Your task to perform on an android device: delete browsing data in the chrome app Image 0: 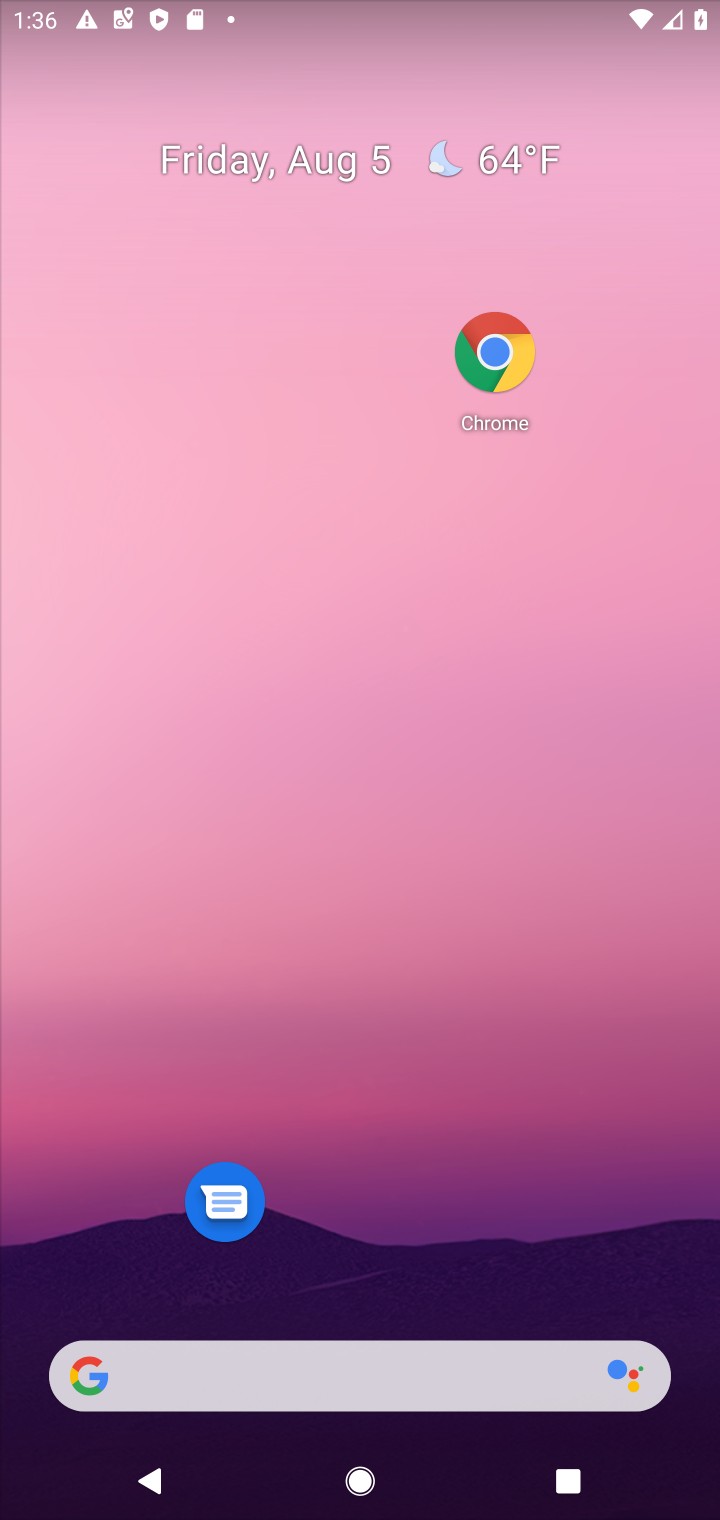
Step 0: drag from (453, 919) to (404, 119)
Your task to perform on an android device: delete browsing data in the chrome app Image 1: 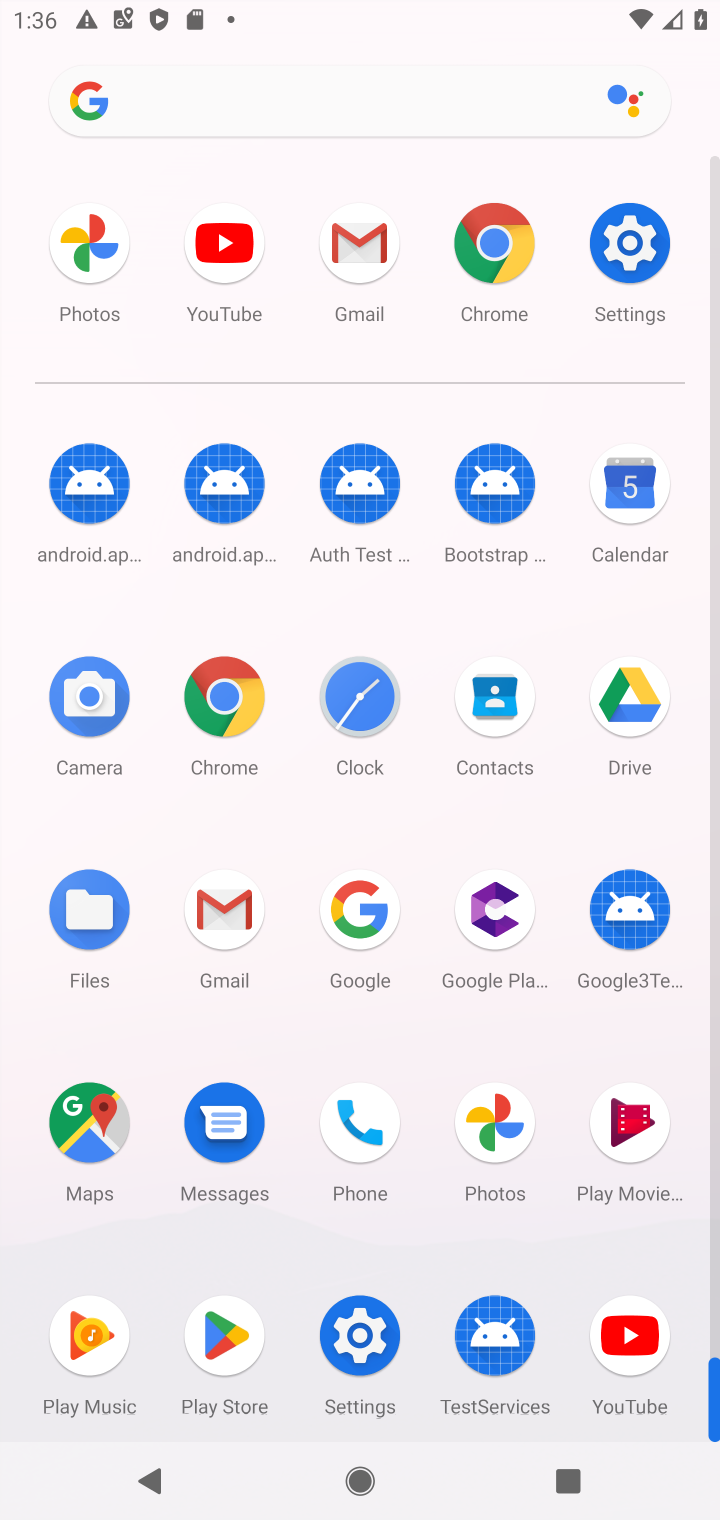
Step 1: click (232, 697)
Your task to perform on an android device: delete browsing data in the chrome app Image 2: 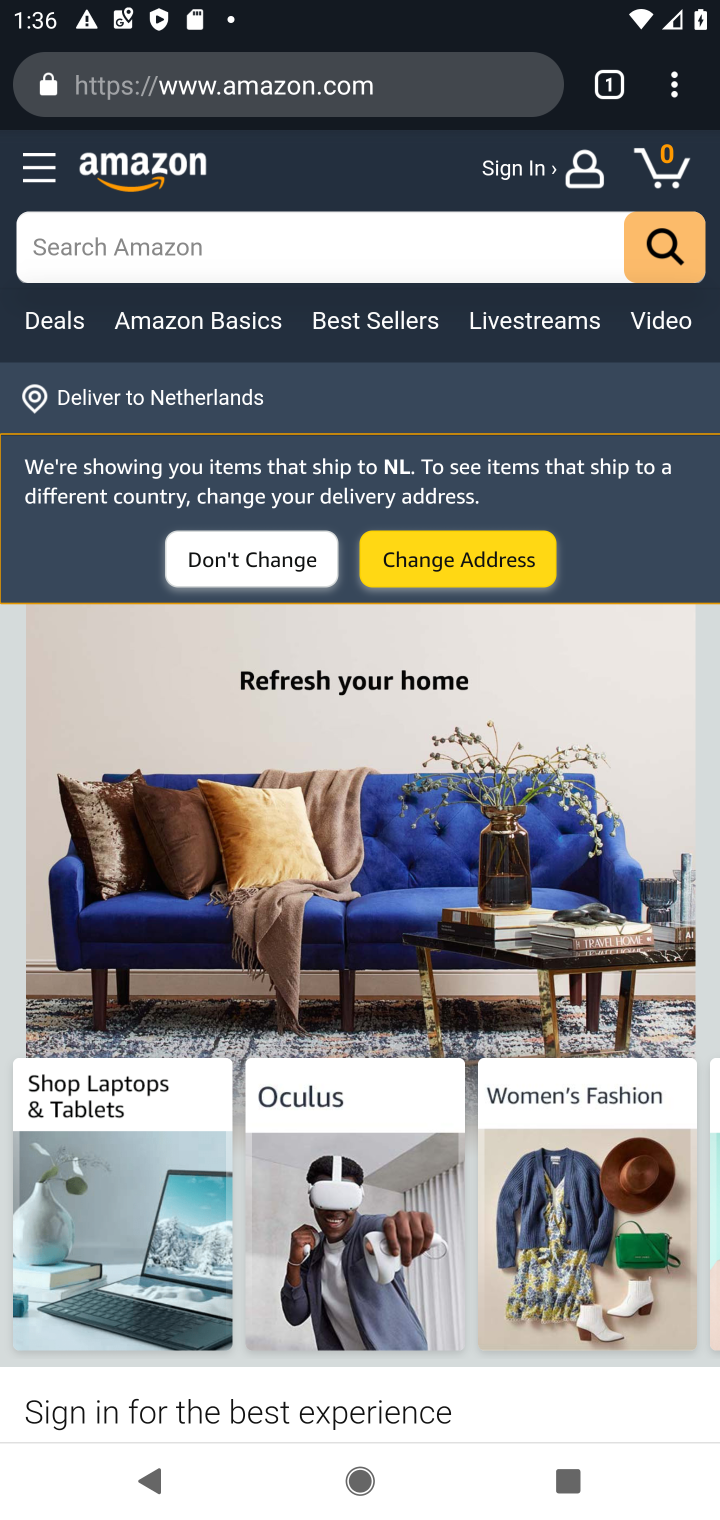
Step 2: drag from (673, 59) to (365, 473)
Your task to perform on an android device: delete browsing data in the chrome app Image 3: 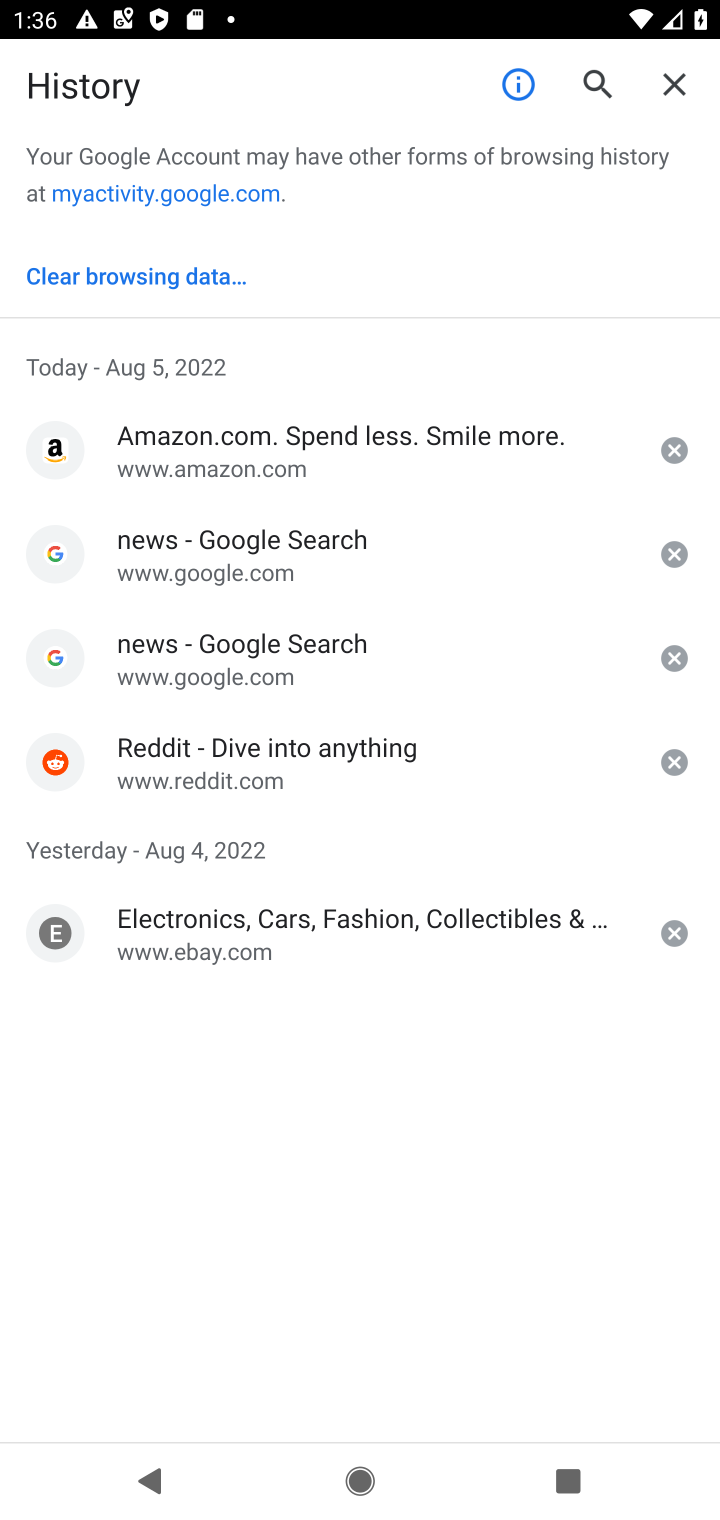
Step 3: click (169, 284)
Your task to perform on an android device: delete browsing data in the chrome app Image 4: 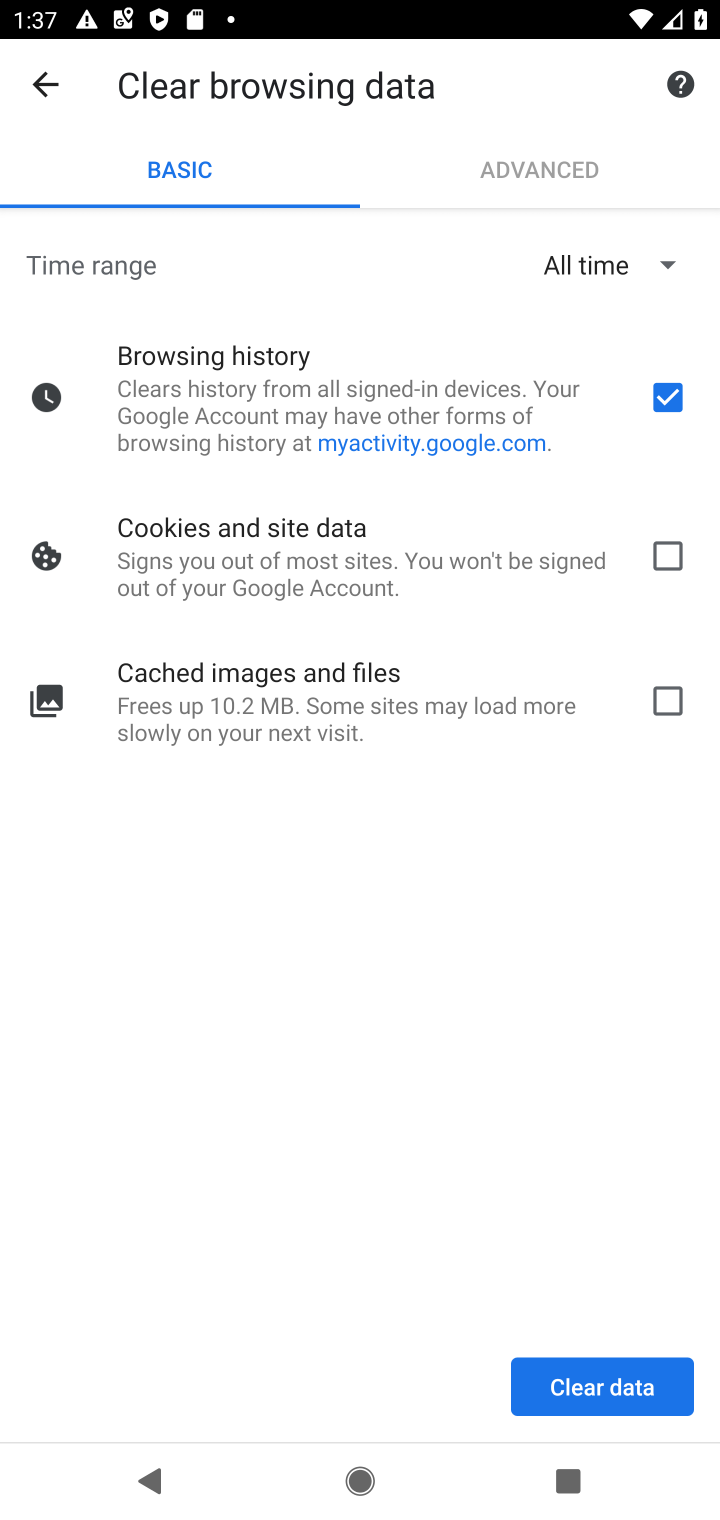
Step 4: click (666, 542)
Your task to perform on an android device: delete browsing data in the chrome app Image 5: 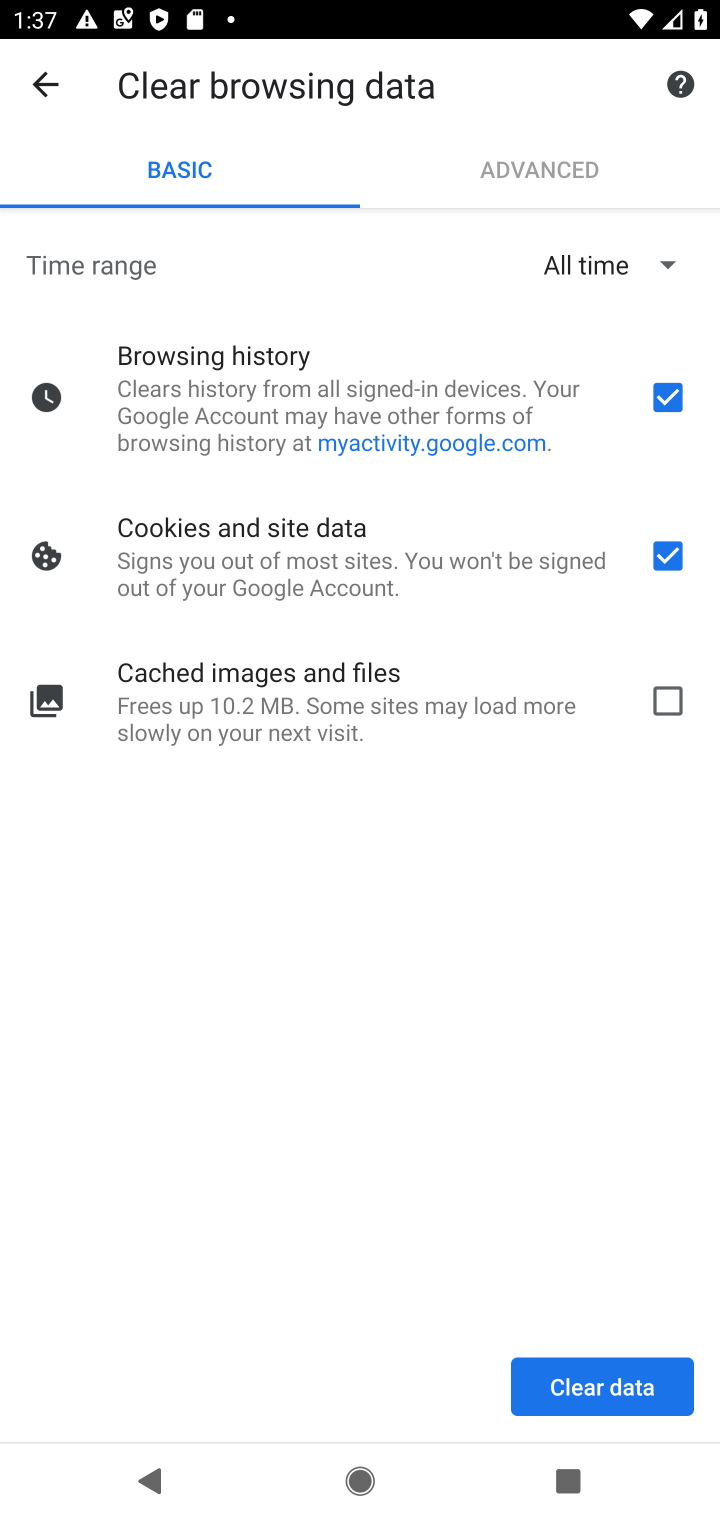
Step 5: click (664, 684)
Your task to perform on an android device: delete browsing data in the chrome app Image 6: 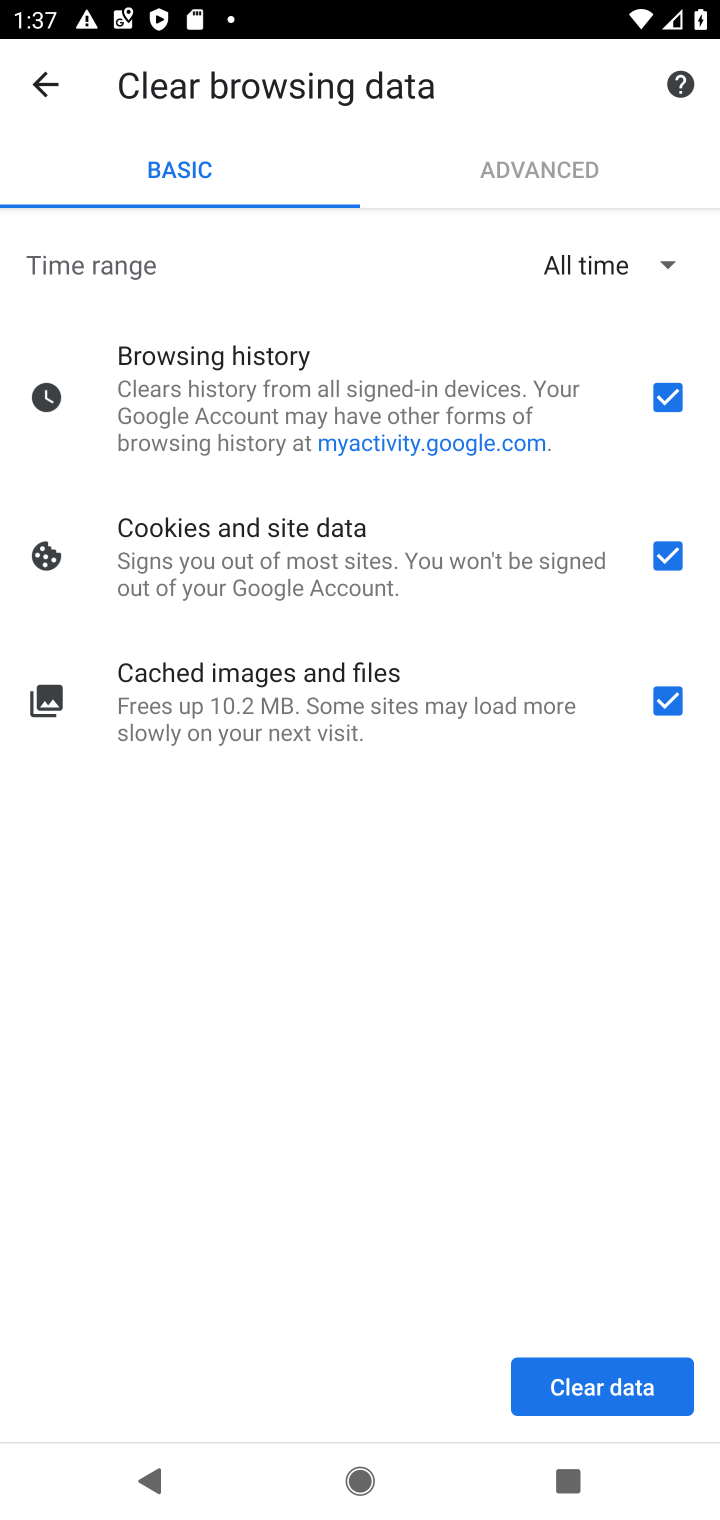
Step 6: click (644, 1385)
Your task to perform on an android device: delete browsing data in the chrome app Image 7: 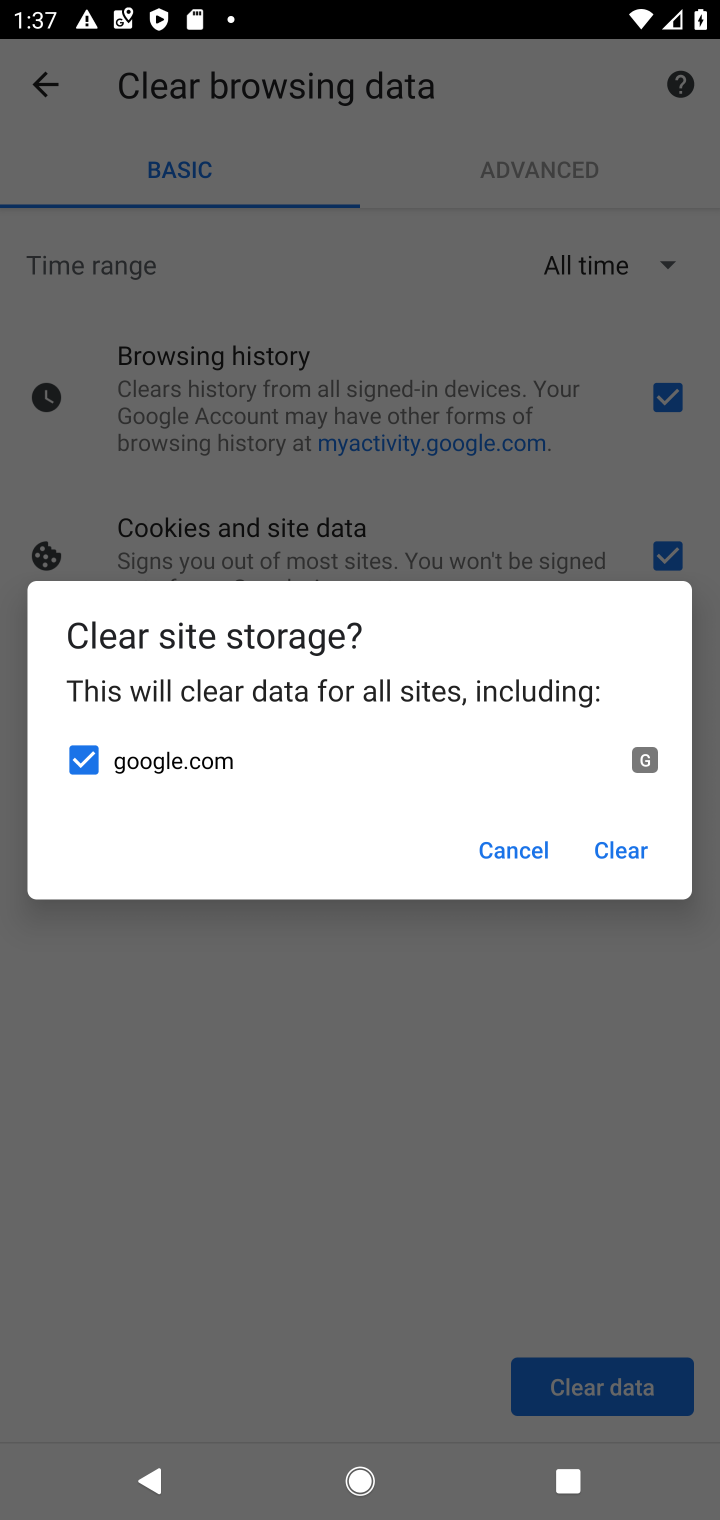
Step 7: click (641, 856)
Your task to perform on an android device: delete browsing data in the chrome app Image 8: 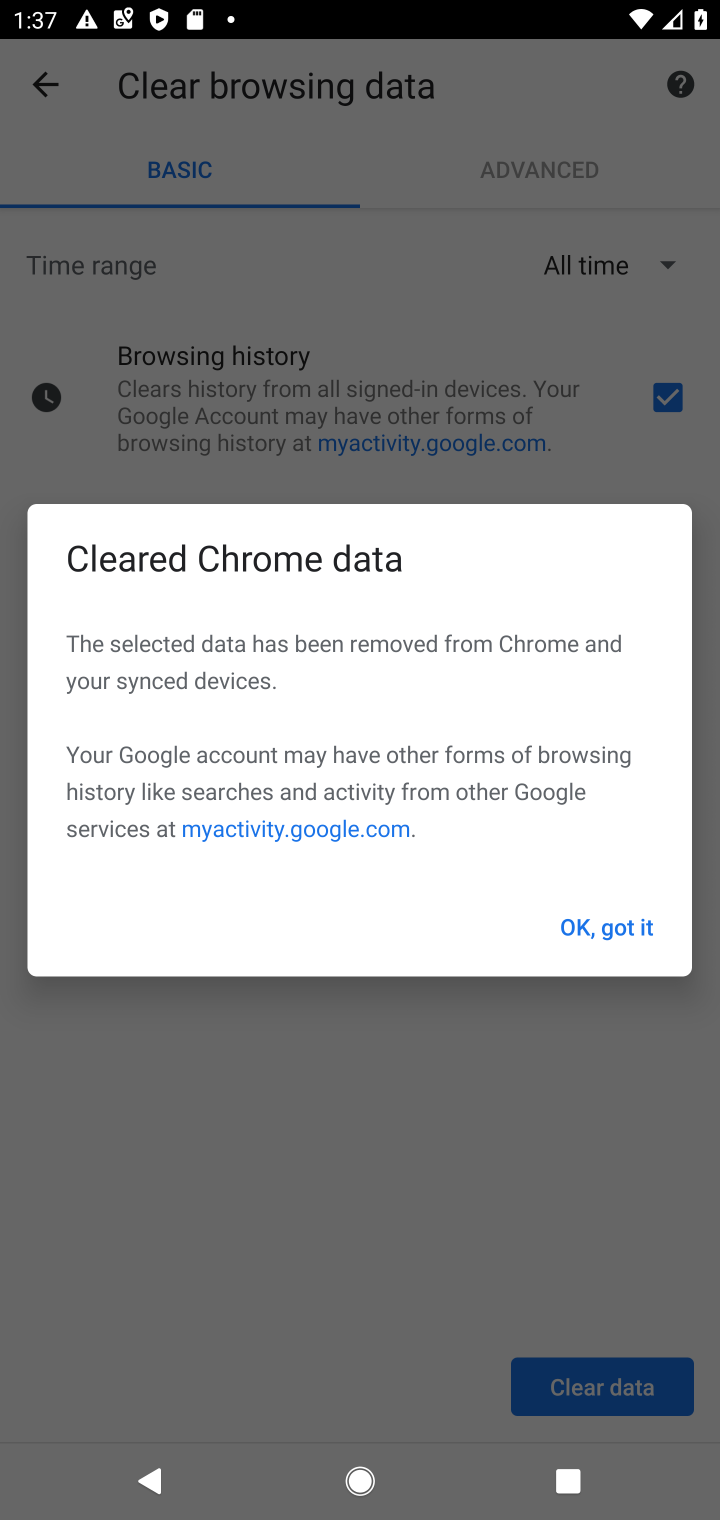
Step 8: click (581, 917)
Your task to perform on an android device: delete browsing data in the chrome app Image 9: 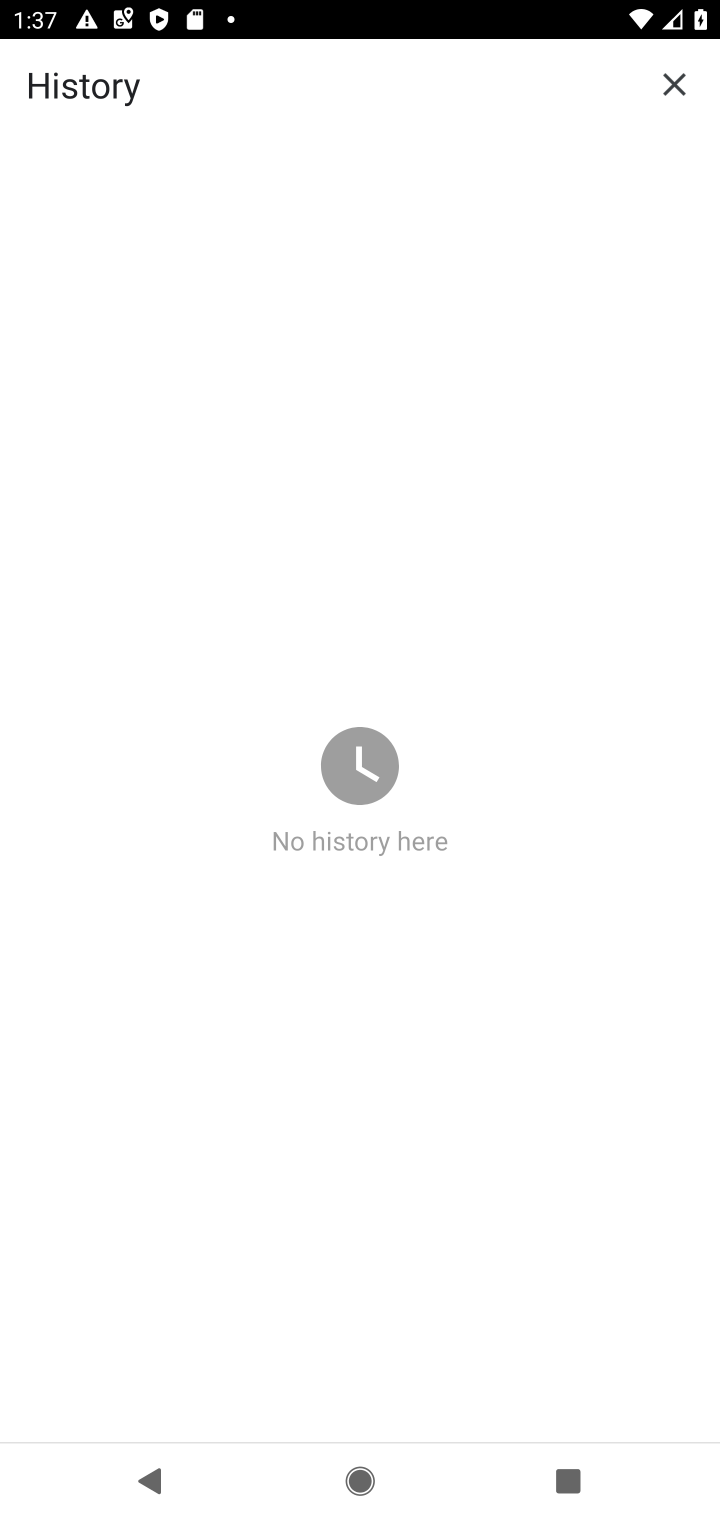
Step 9: task complete